Your task to perform on an android device: Go to notification settings Image 0: 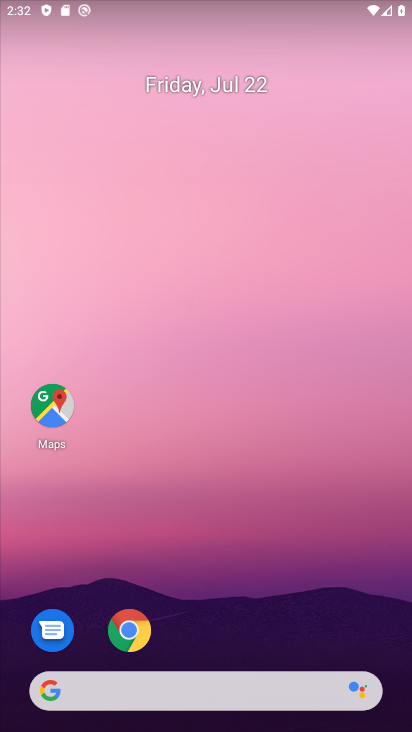
Step 0: drag from (243, 713) to (251, 253)
Your task to perform on an android device: Go to notification settings Image 1: 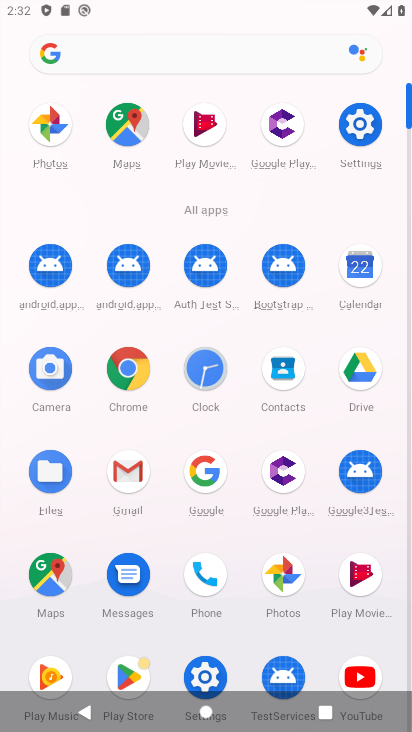
Step 1: click (347, 124)
Your task to perform on an android device: Go to notification settings Image 2: 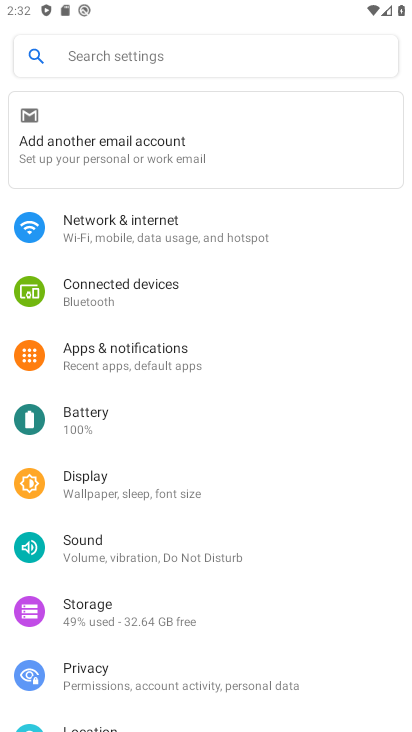
Step 2: click (181, 54)
Your task to perform on an android device: Go to notification settings Image 3: 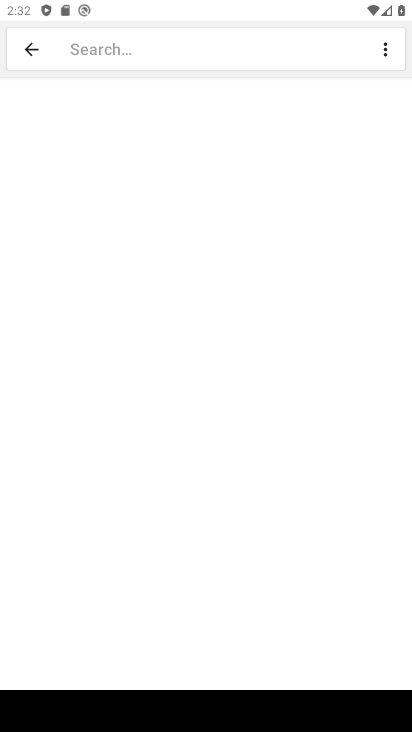
Step 3: drag from (366, 713) to (321, 570)
Your task to perform on an android device: Go to notification settings Image 4: 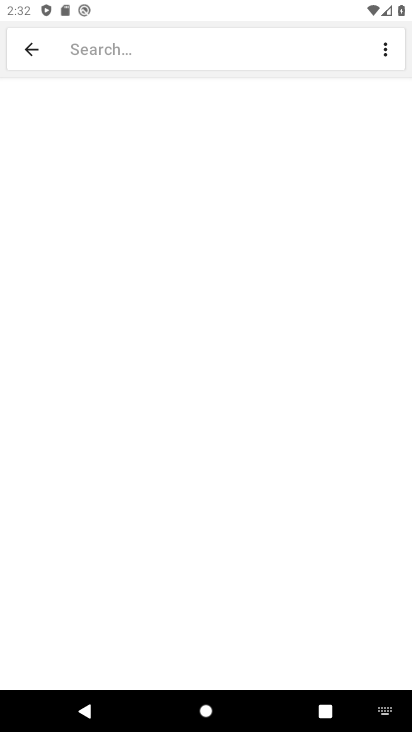
Step 4: click (388, 714)
Your task to perform on an android device: Go to notification settings Image 5: 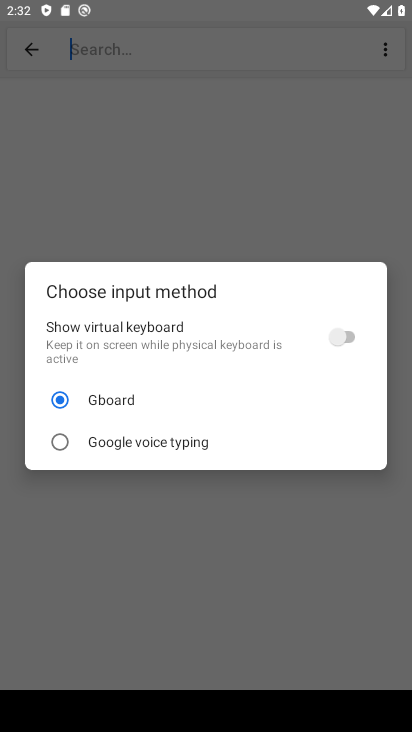
Step 5: click (340, 341)
Your task to perform on an android device: Go to notification settings Image 6: 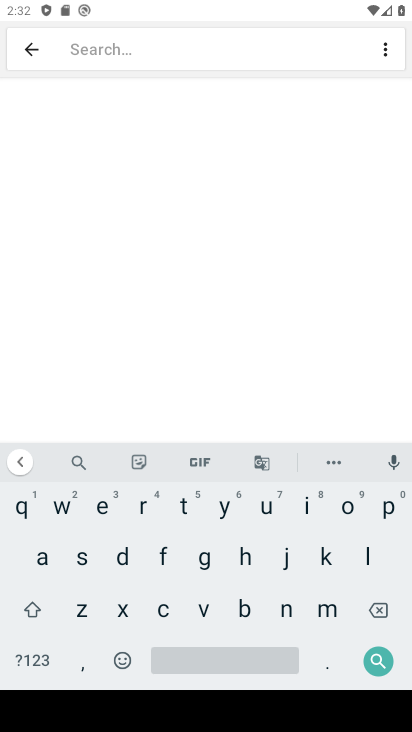
Step 6: click (281, 604)
Your task to perform on an android device: Go to notification settings Image 7: 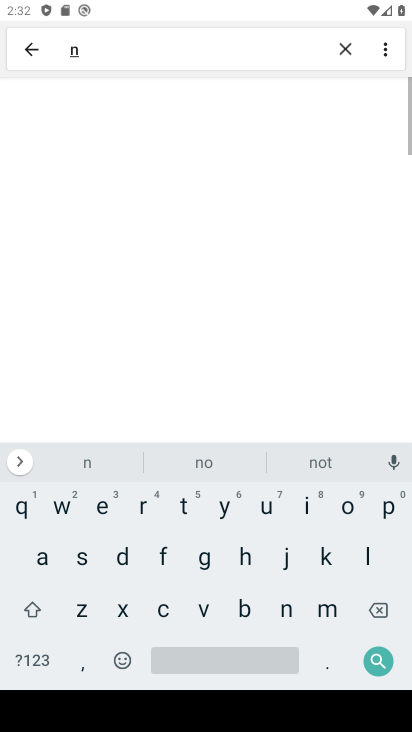
Step 7: click (346, 507)
Your task to perform on an android device: Go to notification settings Image 8: 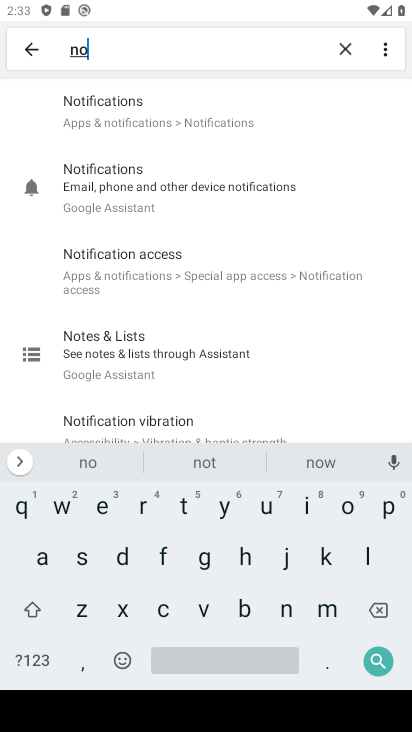
Step 8: click (130, 117)
Your task to perform on an android device: Go to notification settings Image 9: 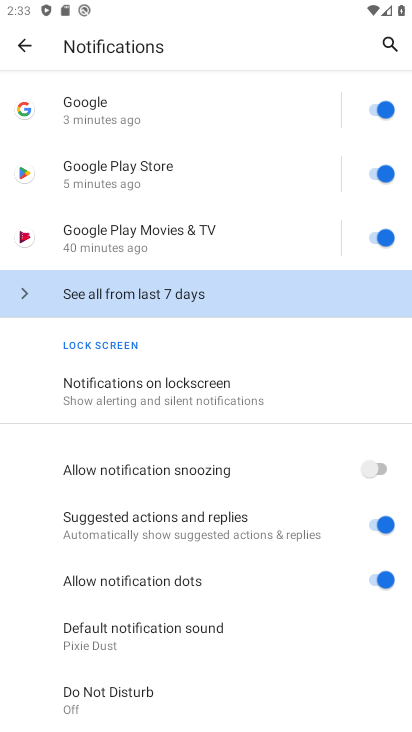
Step 9: click (122, 385)
Your task to perform on an android device: Go to notification settings Image 10: 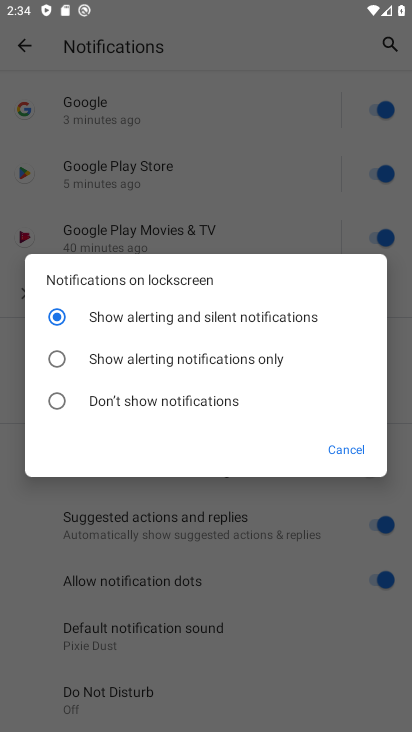
Step 10: task complete